Your task to perform on an android device: turn off sleep mode Image 0: 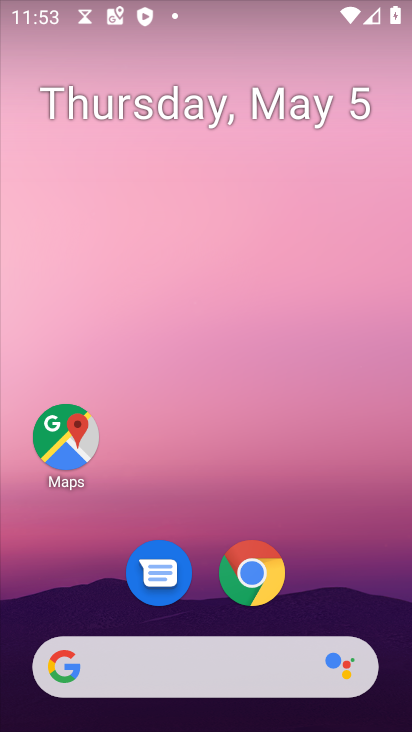
Step 0: drag from (342, 600) to (271, 256)
Your task to perform on an android device: turn off sleep mode Image 1: 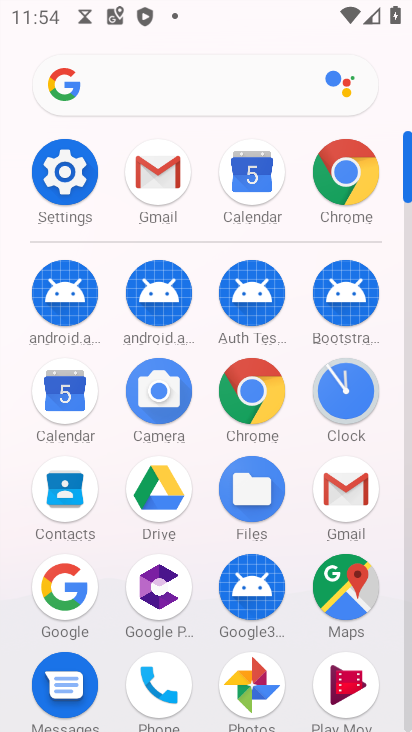
Step 1: click (70, 162)
Your task to perform on an android device: turn off sleep mode Image 2: 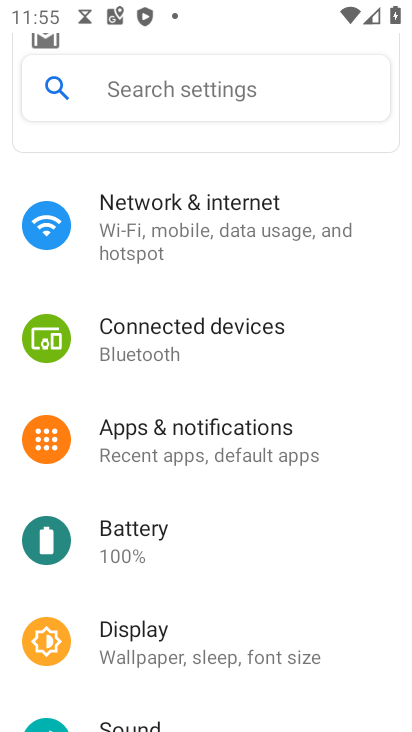
Step 2: task complete